Your task to perform on an android device: uninstall "Life360: Find Family & Friends" Image 0: 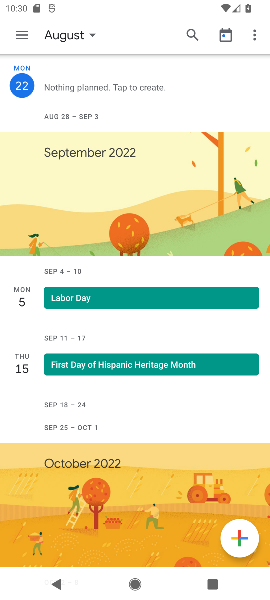
Step 0: press home button
Your task to perform on an android device: uninstall "Life360: Find Family & Friends" Image 1: 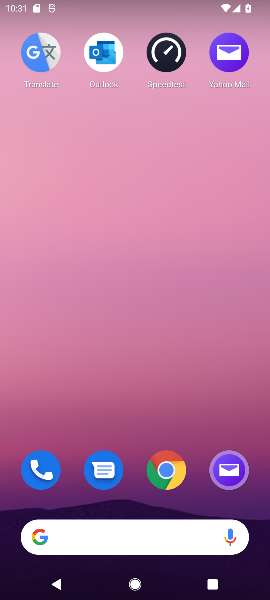
Step 1: drag from (92, 550) to (210, 35)
Your task to perform on an android device: uninstall "Life360: Find Family & Friends" Image 2: 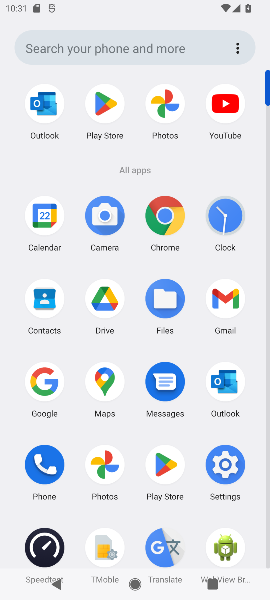
Step 2: click (107, 99)
Your task to perform on an android device: uninstall "Life360: Find Family & Friends" Image 3: 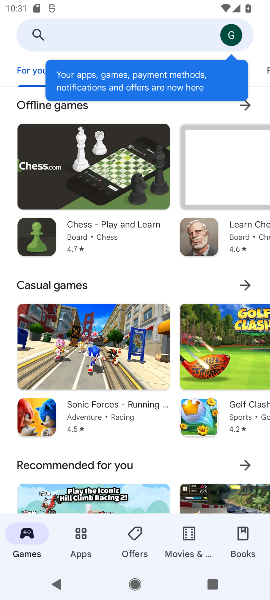
Step 3: click (128, 25)
Your task to perform on an android device: uninstall "Life360: Find Family & Friends" Image 4: 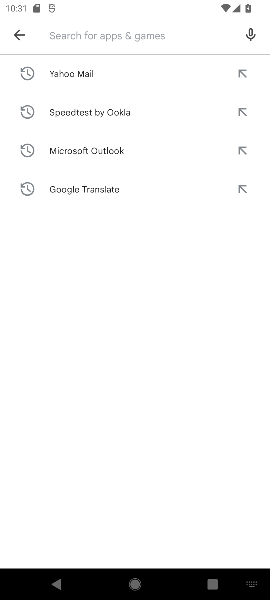
Step 4: type "Life360: Find Family & Friends"
Your task to perform on an android device: uninstall "Life360: Find Family & Friends" Image 5: 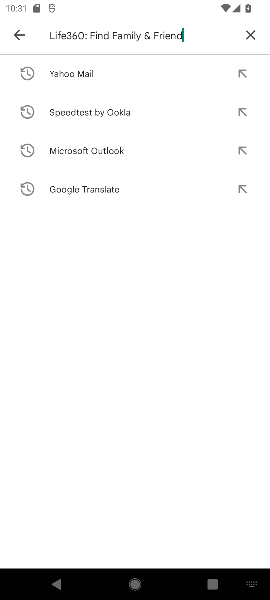
Step 5: press enter
Your task to perform on an android device: uninstall "Life360: Find Family & Friends" Image 6: 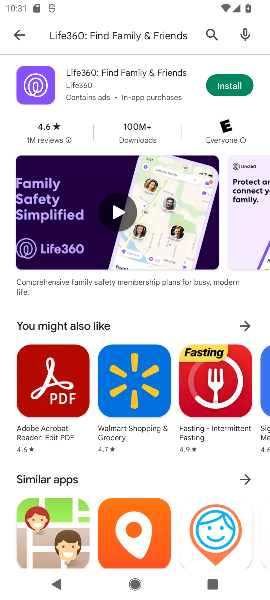
Step 6: task complete